Your task to perform on an android device: Open calendar and show me the first week of next month Image 0: 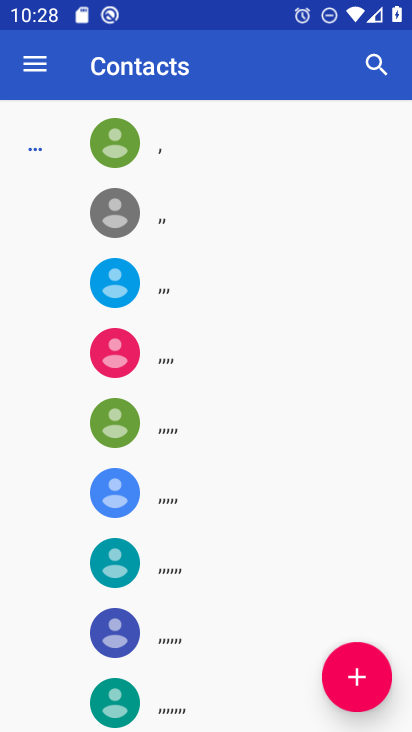
Step 0: press home button
Your task to perform on an android device: Open calendar and show me the first week of next month Image 1: 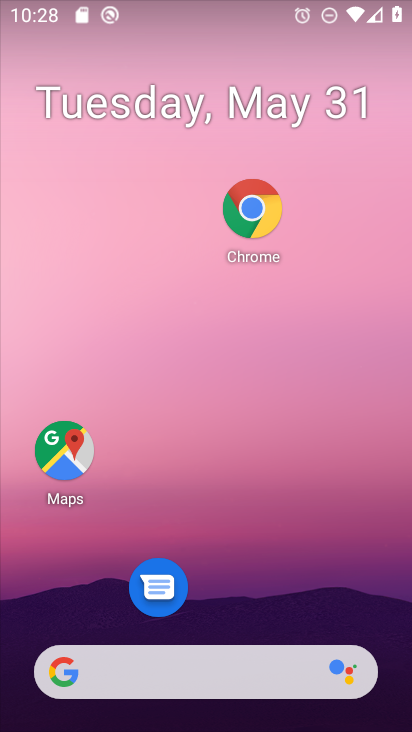
Step 1: drag from (258, 596) to (261, 15)
Your task to perform on an android device: Open calendar and show me the first week of next month Image 2: 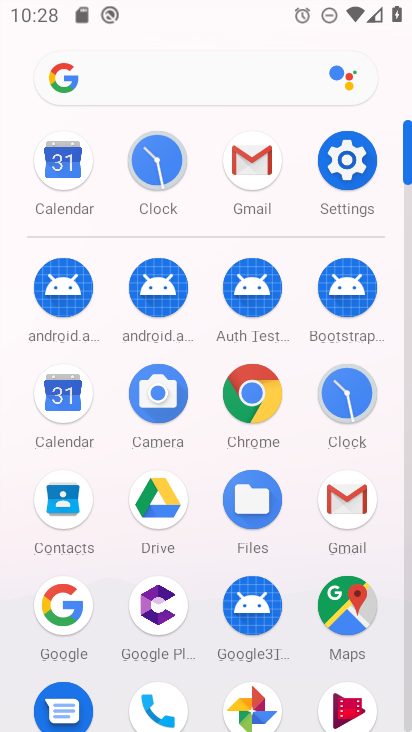
Step 2: click (40, 388)
Your task to perform on an android device: Open calendar and show me the first week of next month Image 3: 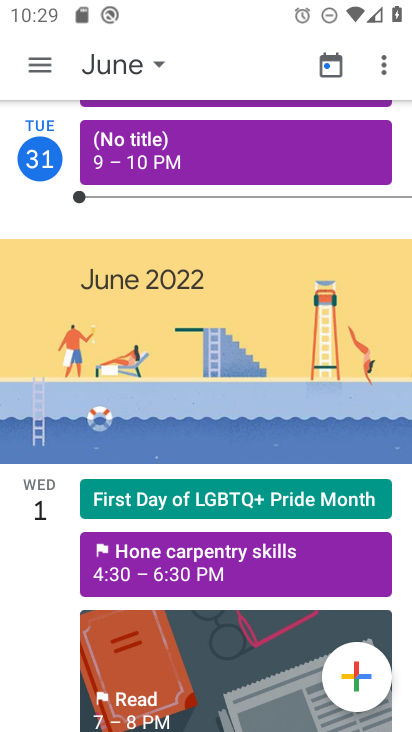
Step 3: task complete